Your task to perform on an android device: Go to sound settings Image 0: 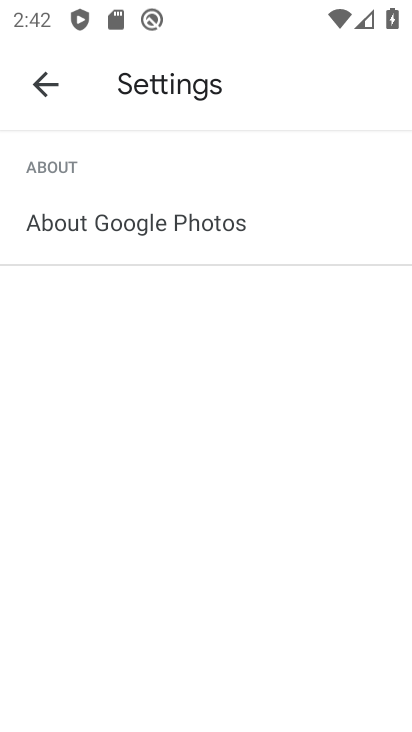
Step 0: press home button
Your task to perform on an android device: Go to sound settings Image 1: 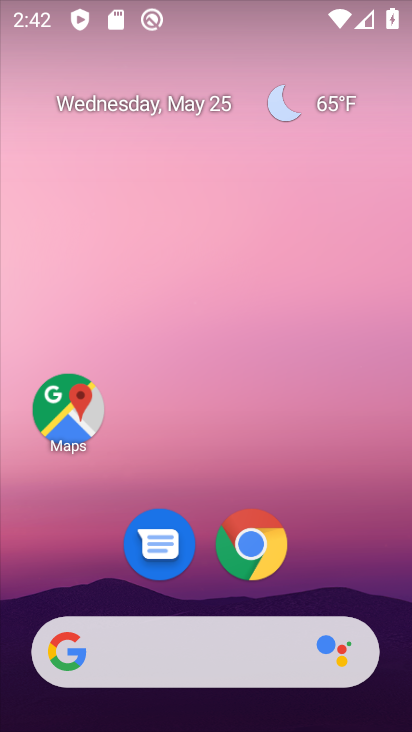
Step 1: drag from (386, 595) to (210, 73)
Your task to perform on an android device: Go to sound settings Image 2: 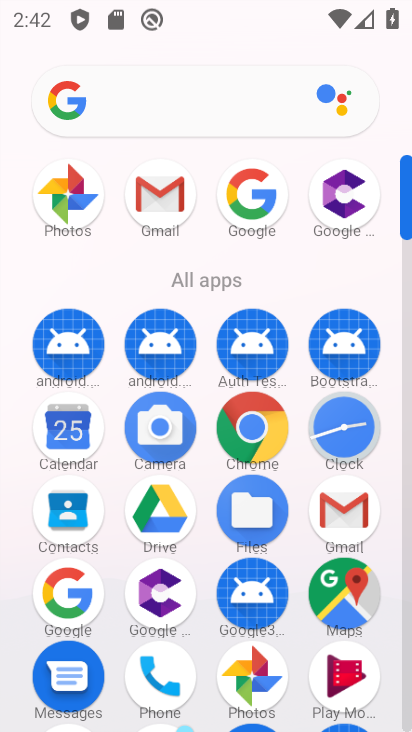
Step 2: click (409, 684)
Your task to perform on an android device: Go to sound settings Image 3: 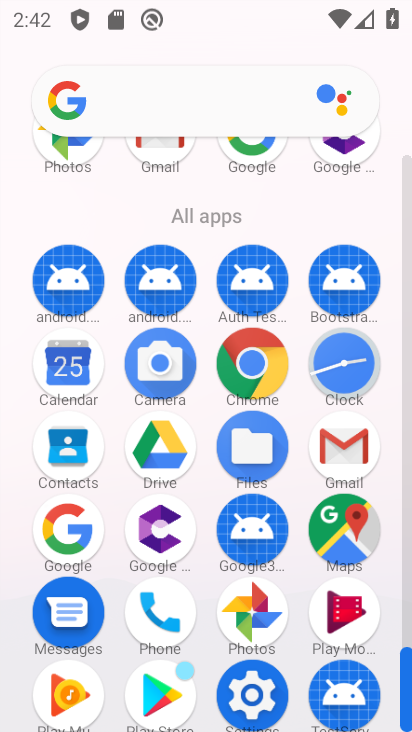
Step 3: click (249, 707)
Your task to perform on an android device: Go to sound settings Image 4: 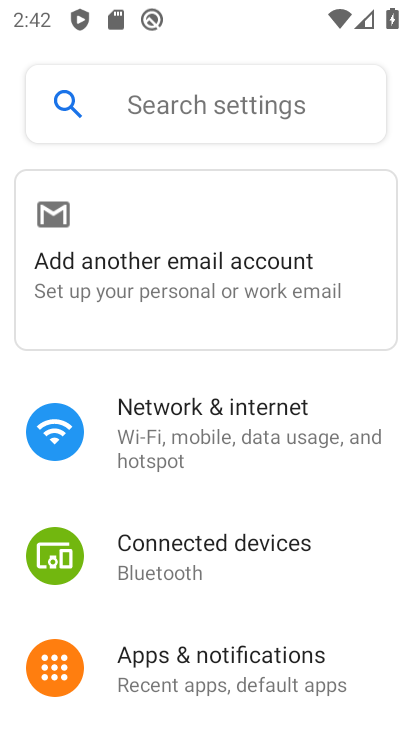
Step 4: drag from (249, 707) to (246, 247)
Your task to perform on an android device: Go to sound settings Image 5: 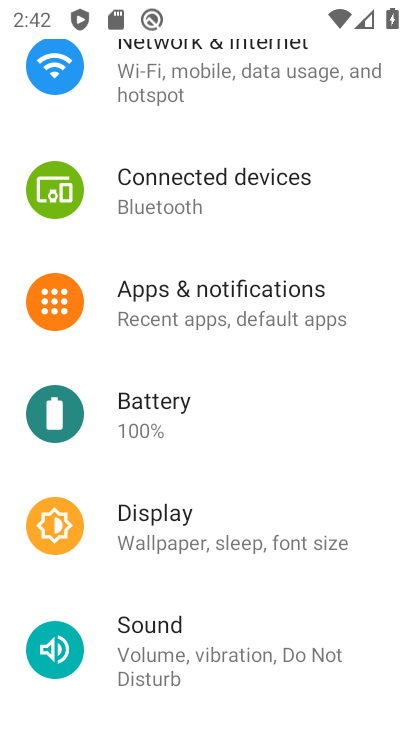
Step 5: click (223, 621)
Your task to perform on an android device: Go to sound settings Image 6: 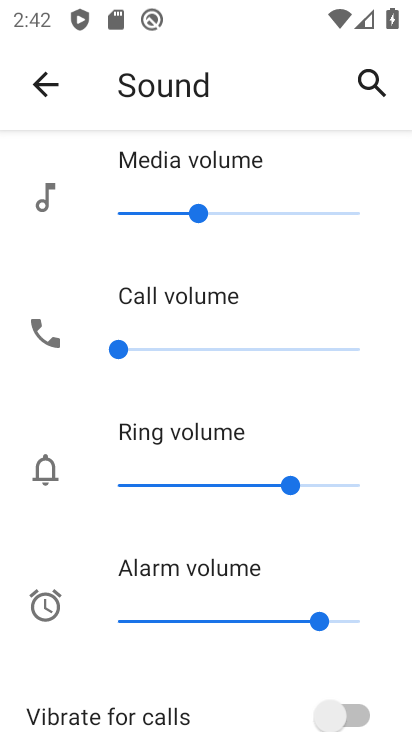
Step 6: task complete